Your task to perform on an android device: Add "bose soundlink" to the cart on amazon.com Image 0: 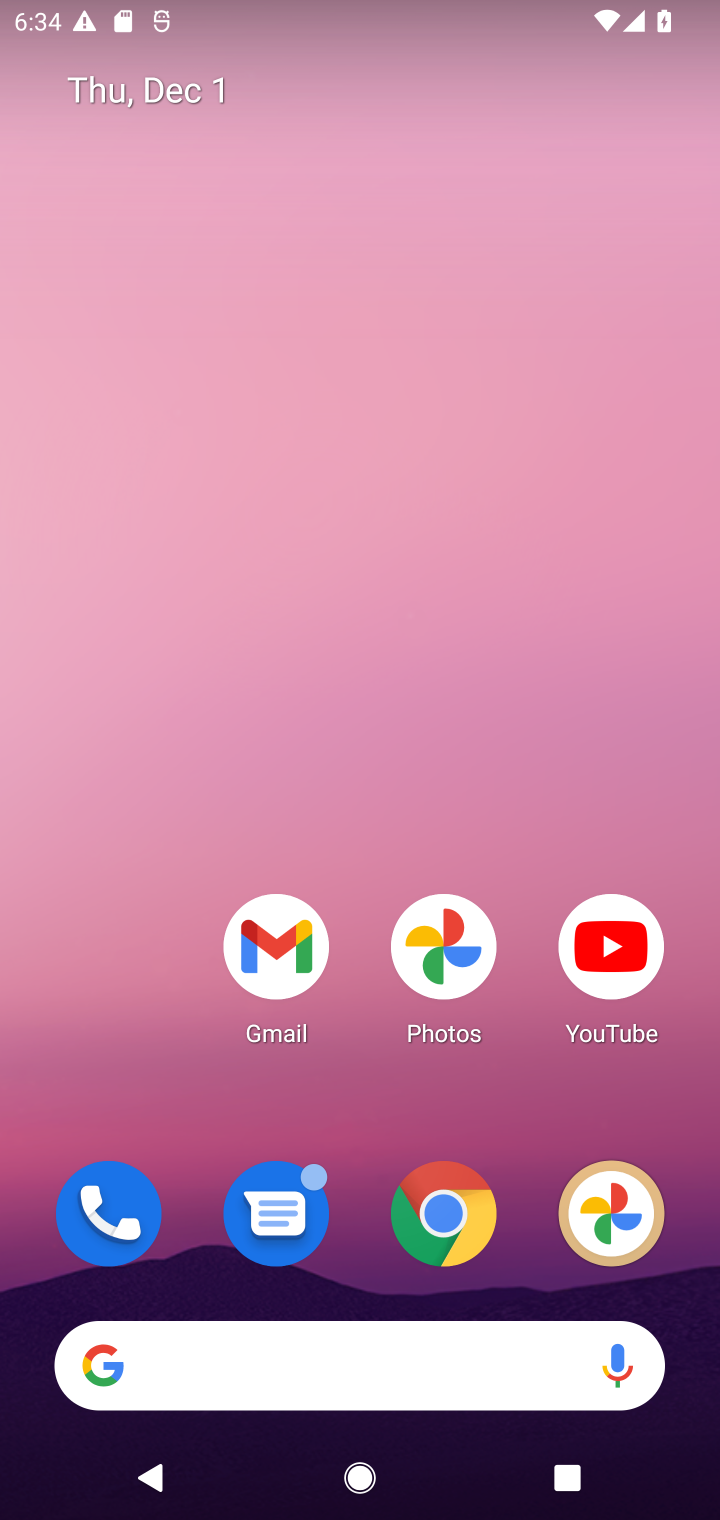
Step 0: click (286, 1355)
Your task to perform on an android device: Add "bose soundlink" to the cart on amazon.com Image 1: 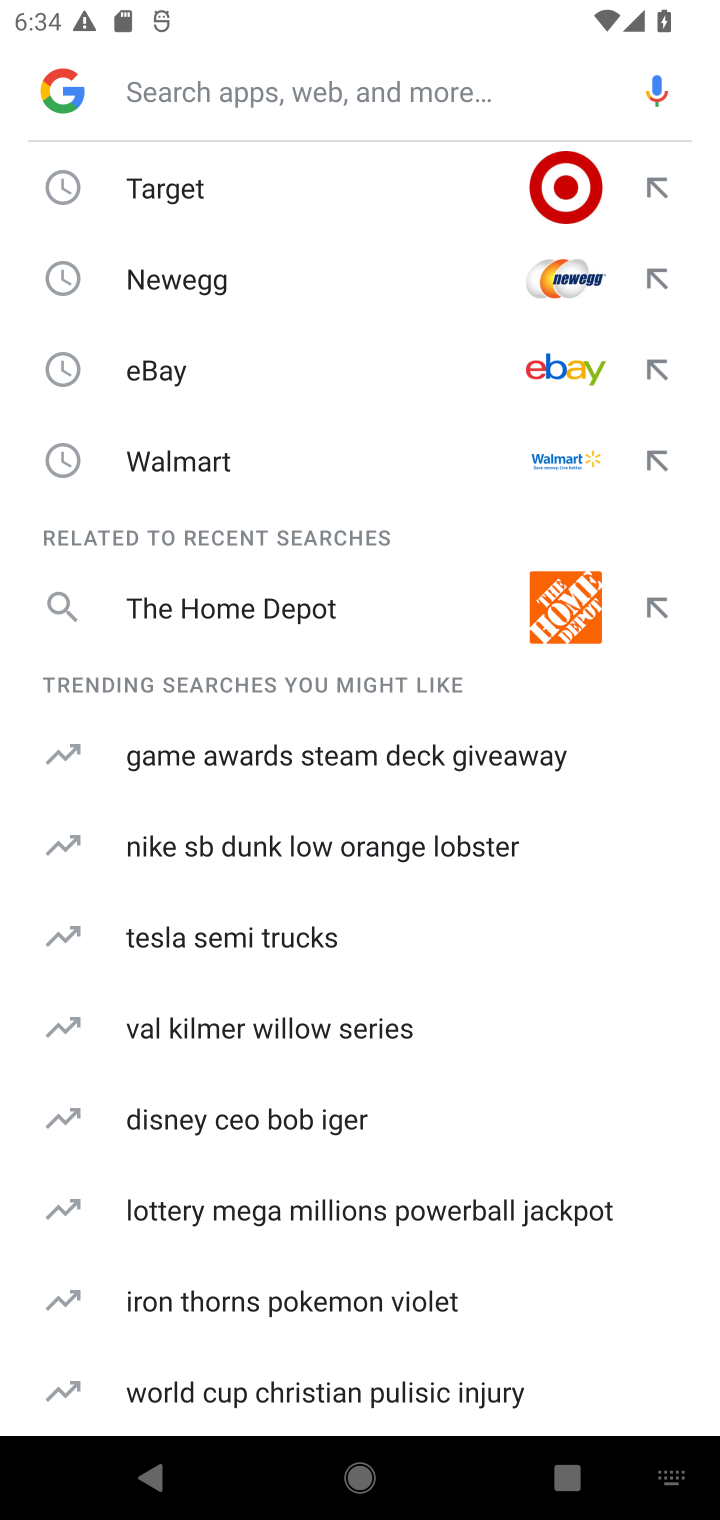
Step 1: type "amazon"
Your task to perform on an android device: Add "bose soundlink" to the cart on amazon.com Image 2: 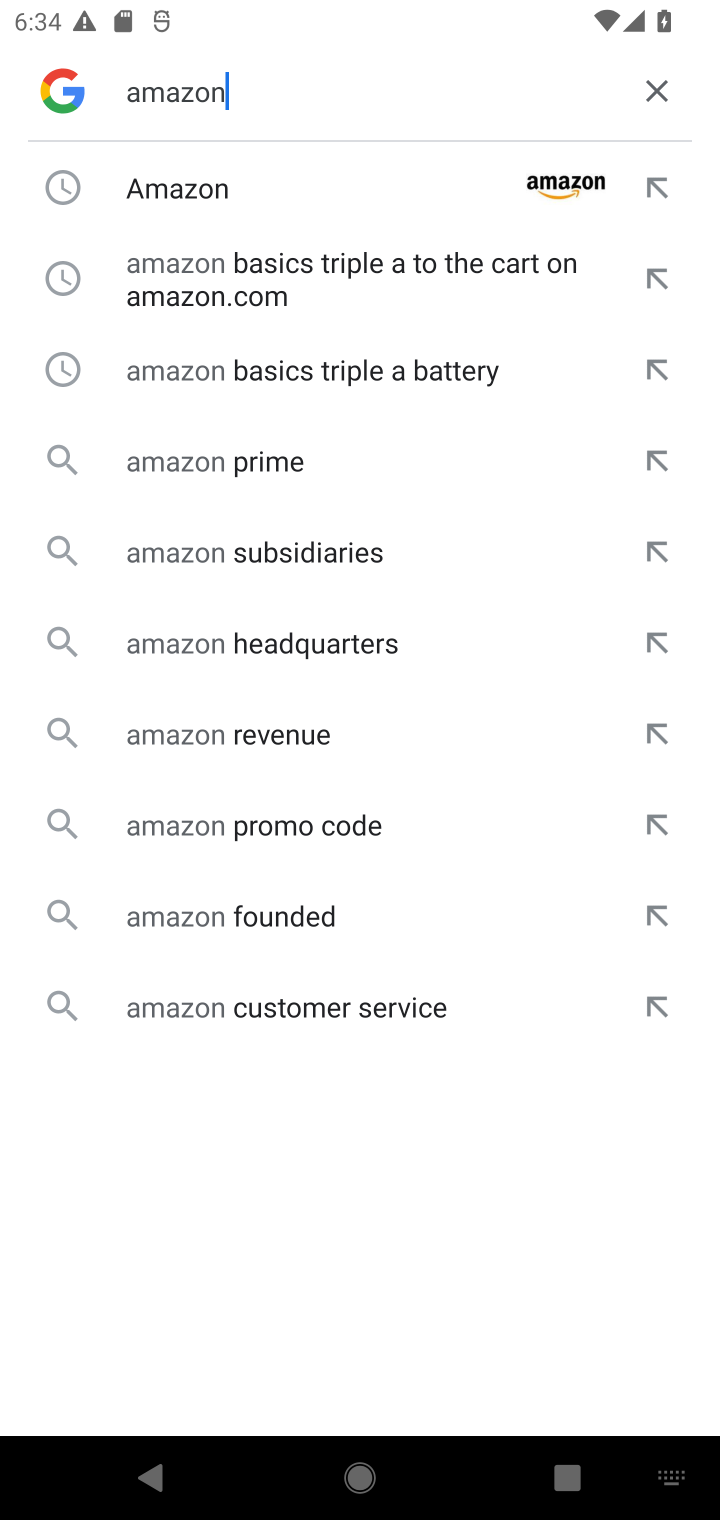
Step 2: click (153, 216)
Your task to perform on an android device: Add "bose soundlink" to the cart on amazon.com Image 3: 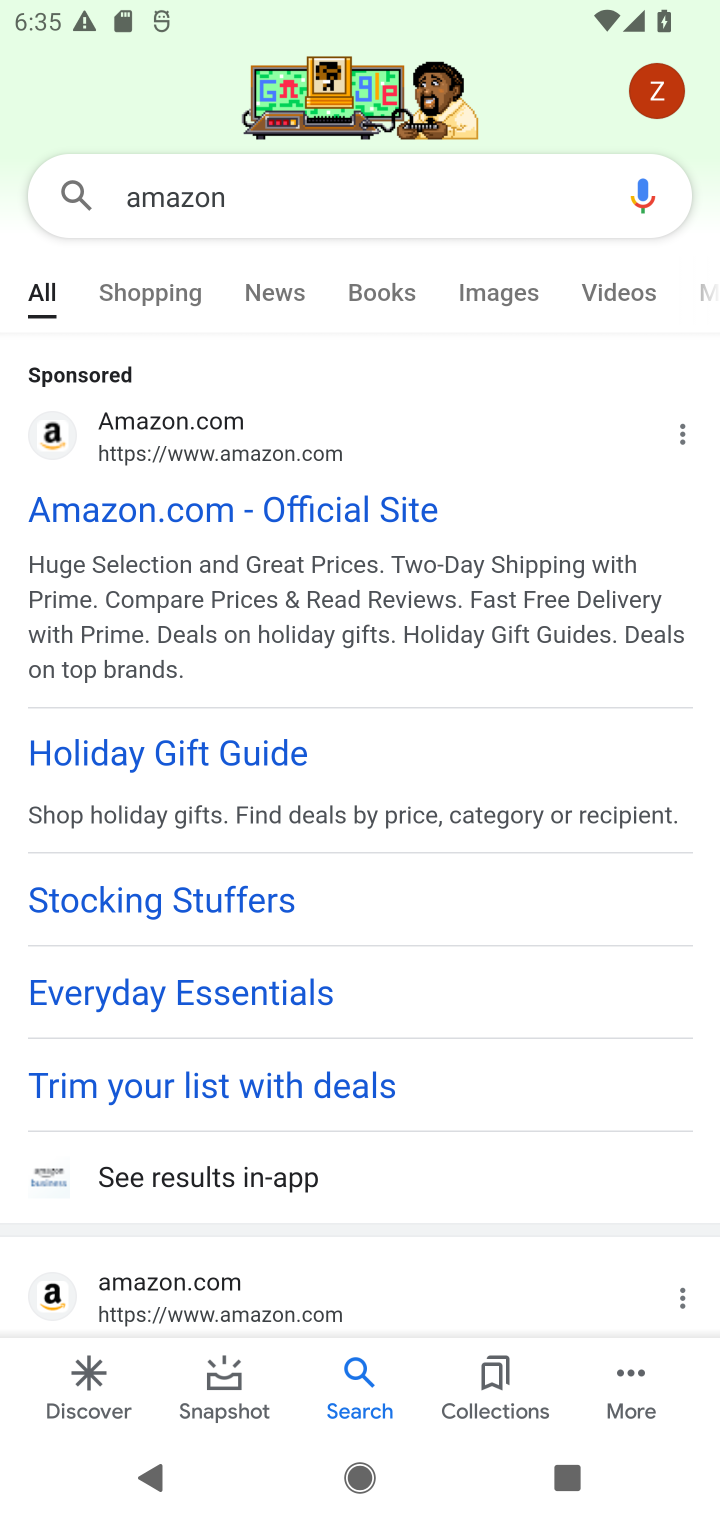
Step 3: click (335, 510)
Your task to perform on an android device: Add "bose soundlink" to the cart on amazon.com Image 4: 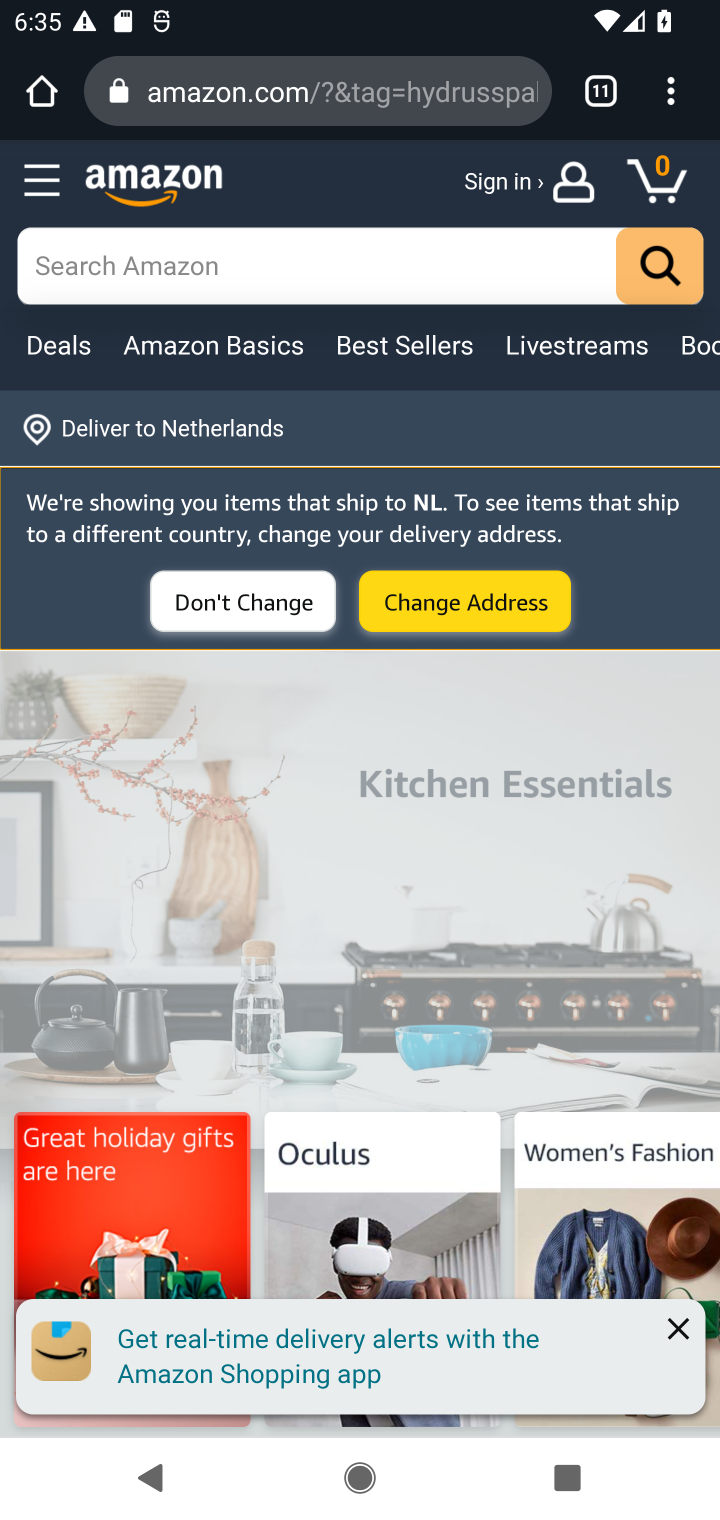
Step 4: click (222, 248)
Your task to perform on an android device: Add "bose soundlink" to the cart on amazon.com Image 5: 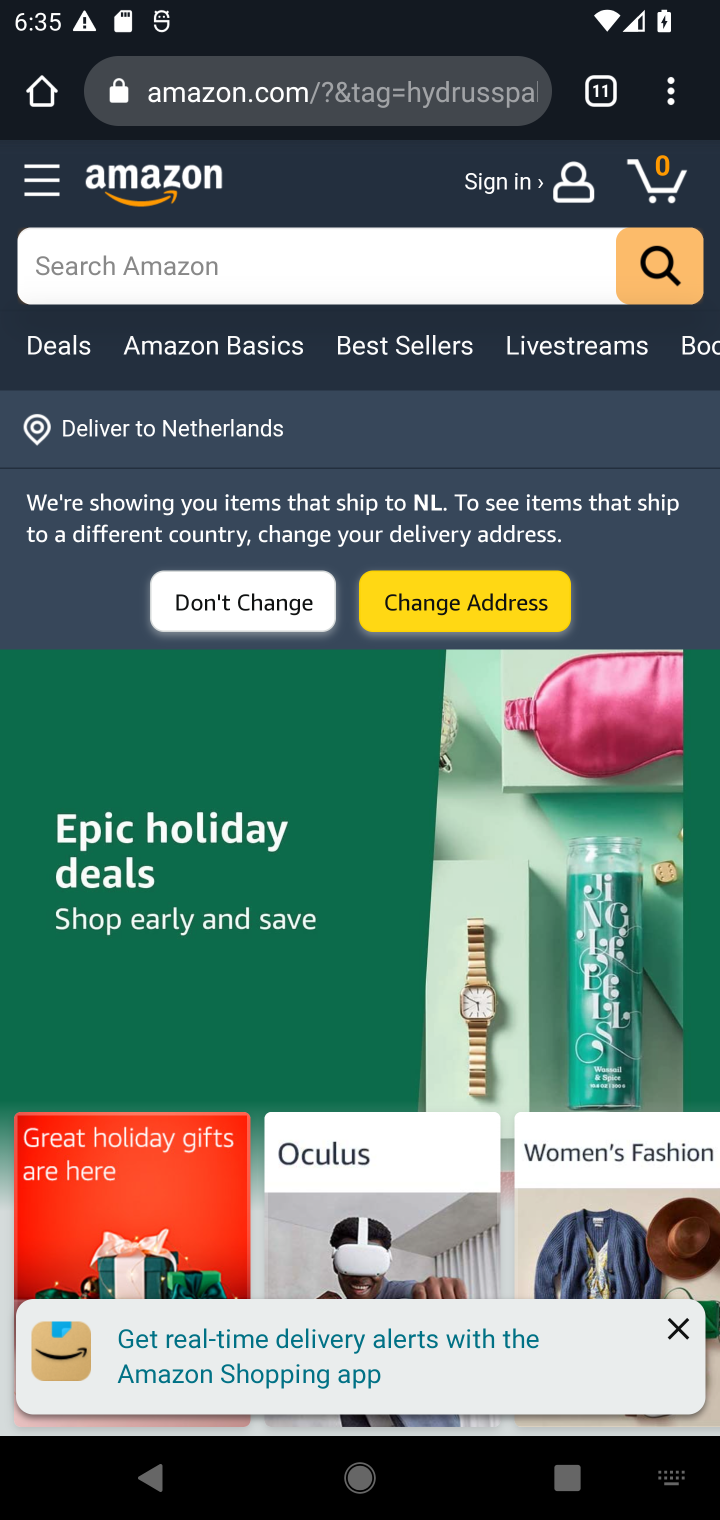
Step 5: type "bose soublink"
Your task to perform on an android device: Add "bose soundlink" to the cart on amazon.com Image 6: 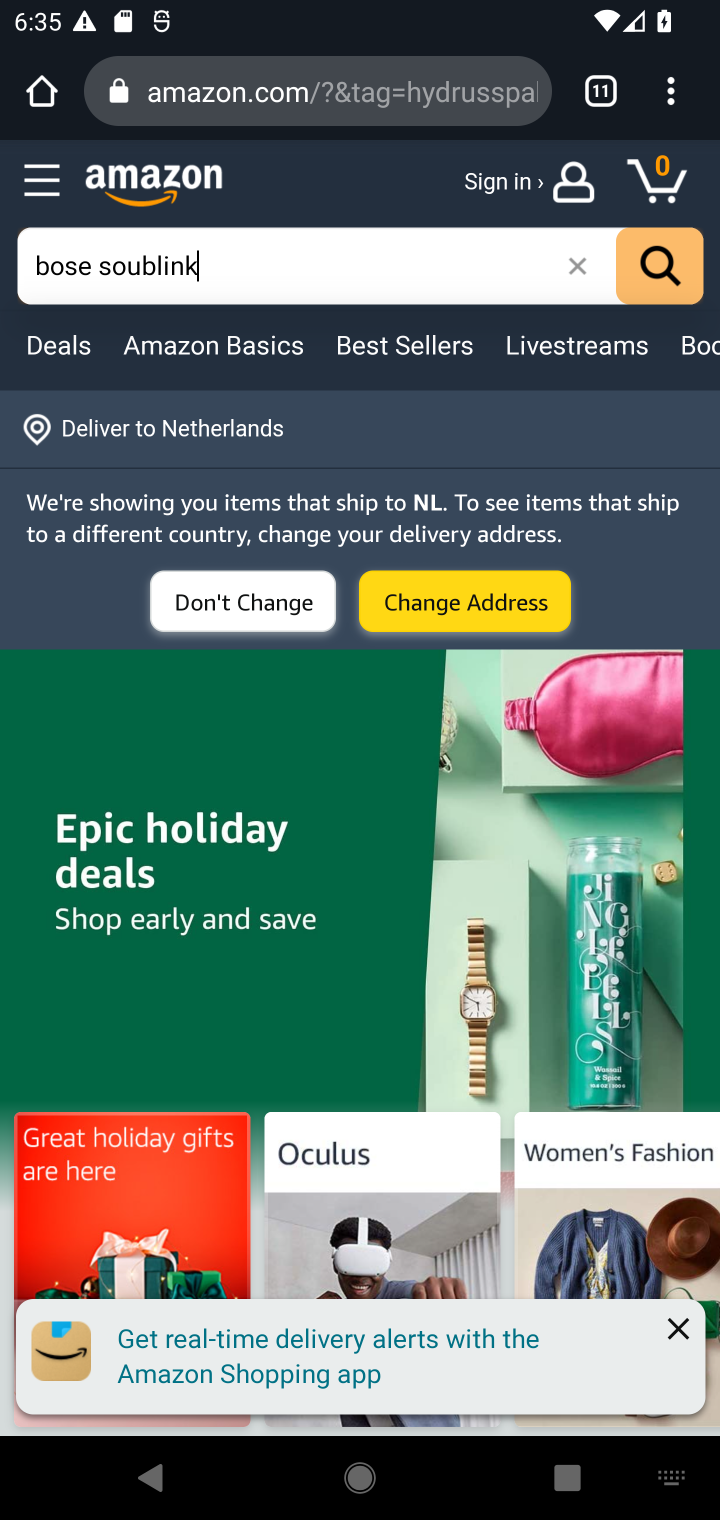
Step 6: click (670, 278)
Your task to perform on an android device: Add "bose soundlink" to the cart on amazon.com Image 7: 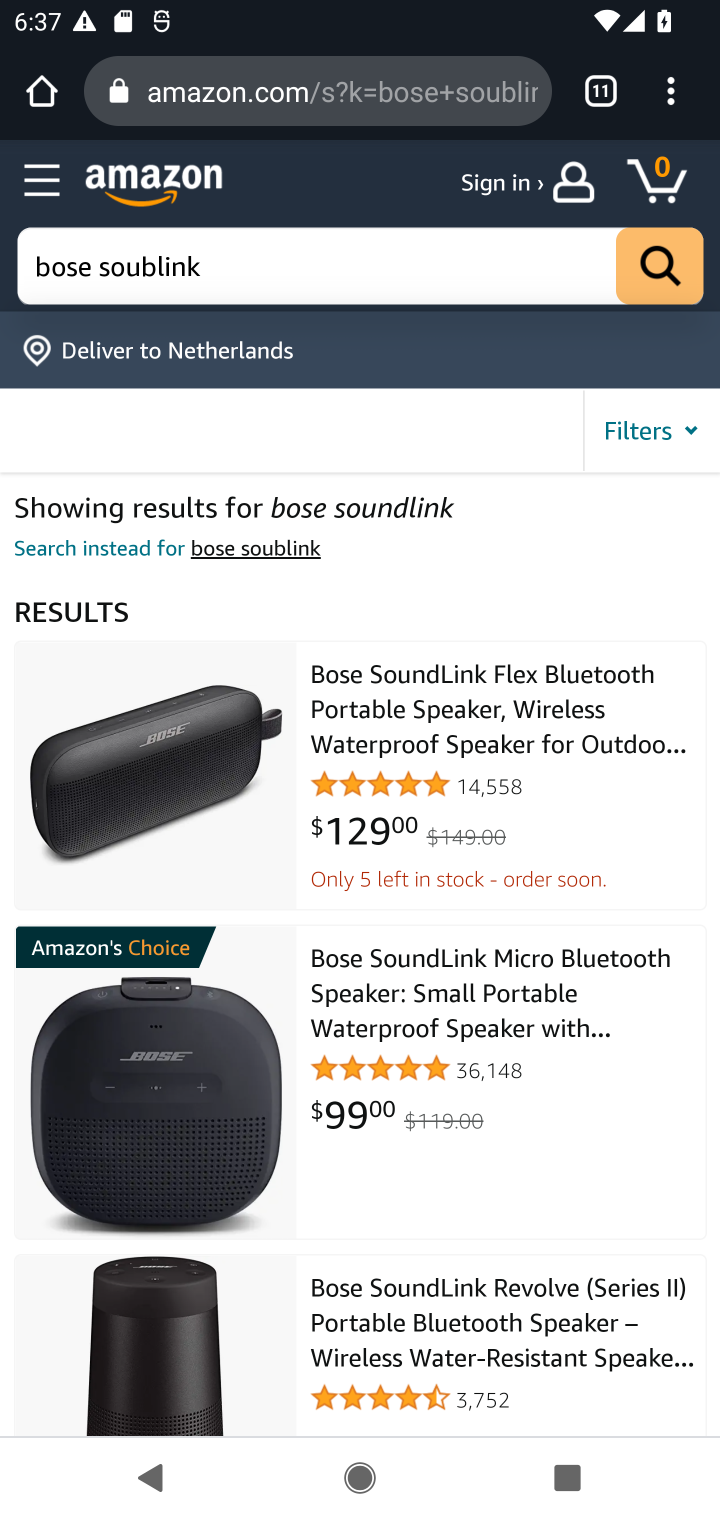
Step 7: click (608, 681)
Your task to perform on an android device: Add "bose soundlink" to the cart on amazon.com Image 8: 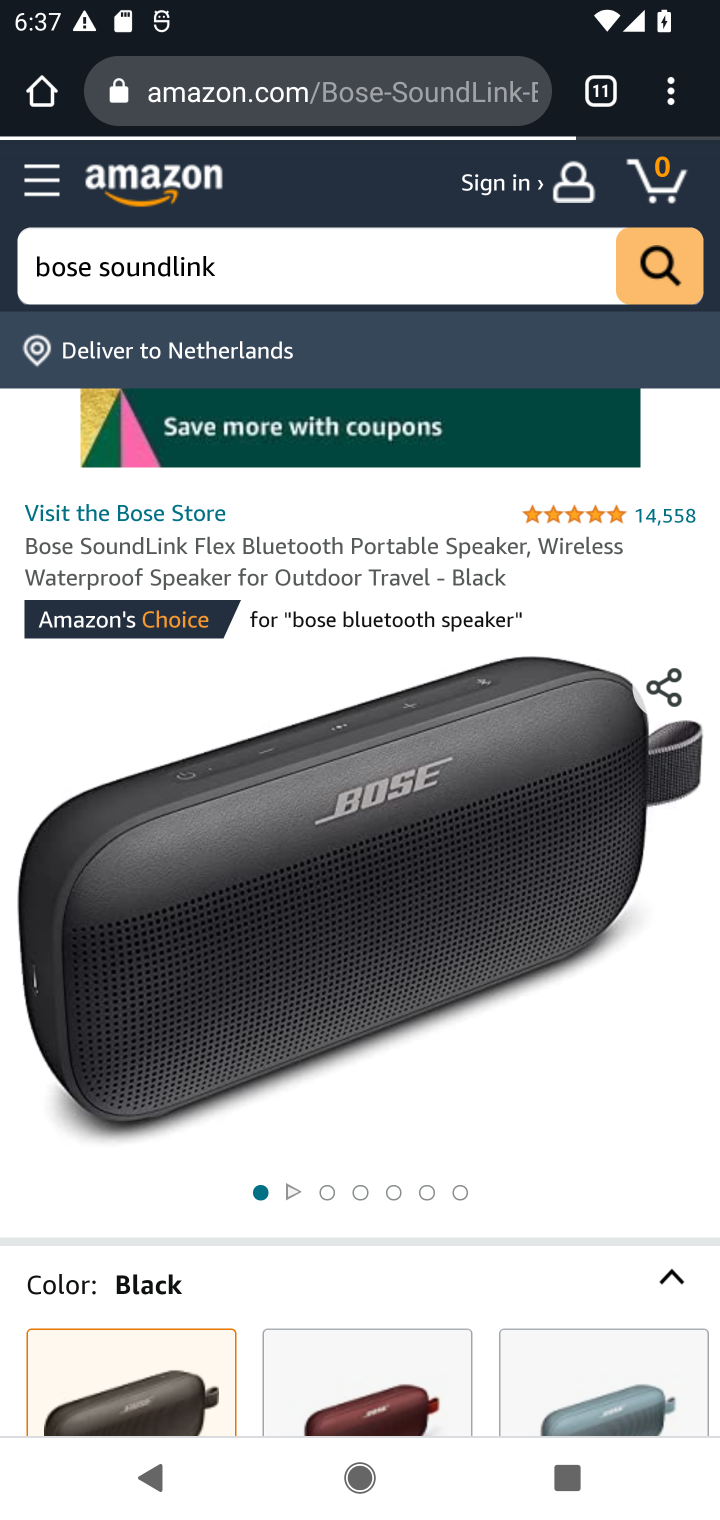
Step 8: drag from (444, 1131) to (436, 568)
Your task to perform on an android device: Add "bose soundlink" to the cart on amazon.com Image 9: 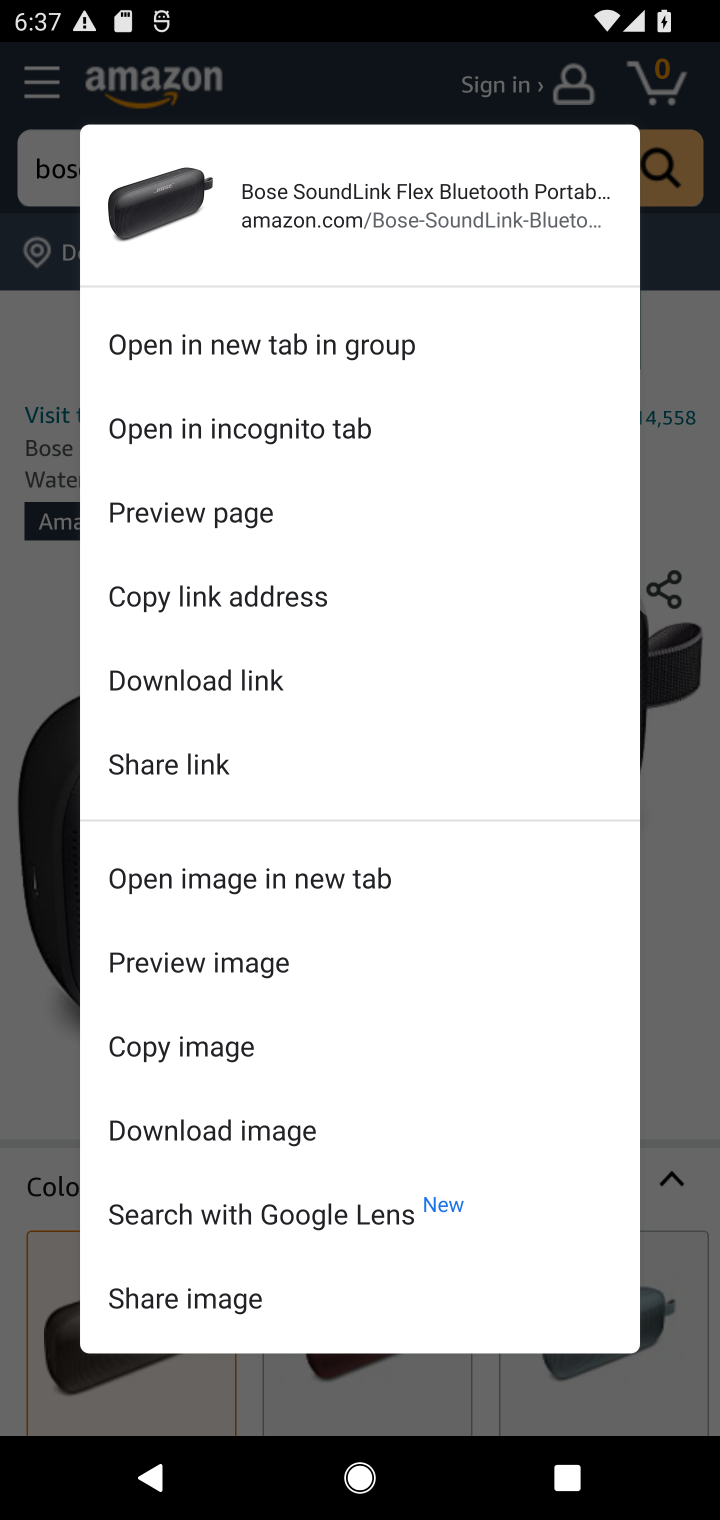
Step 9: click (678, 919)
Your task to perform on an android device: Add "bose soundlink" to the cart on amazon.com Image 10: 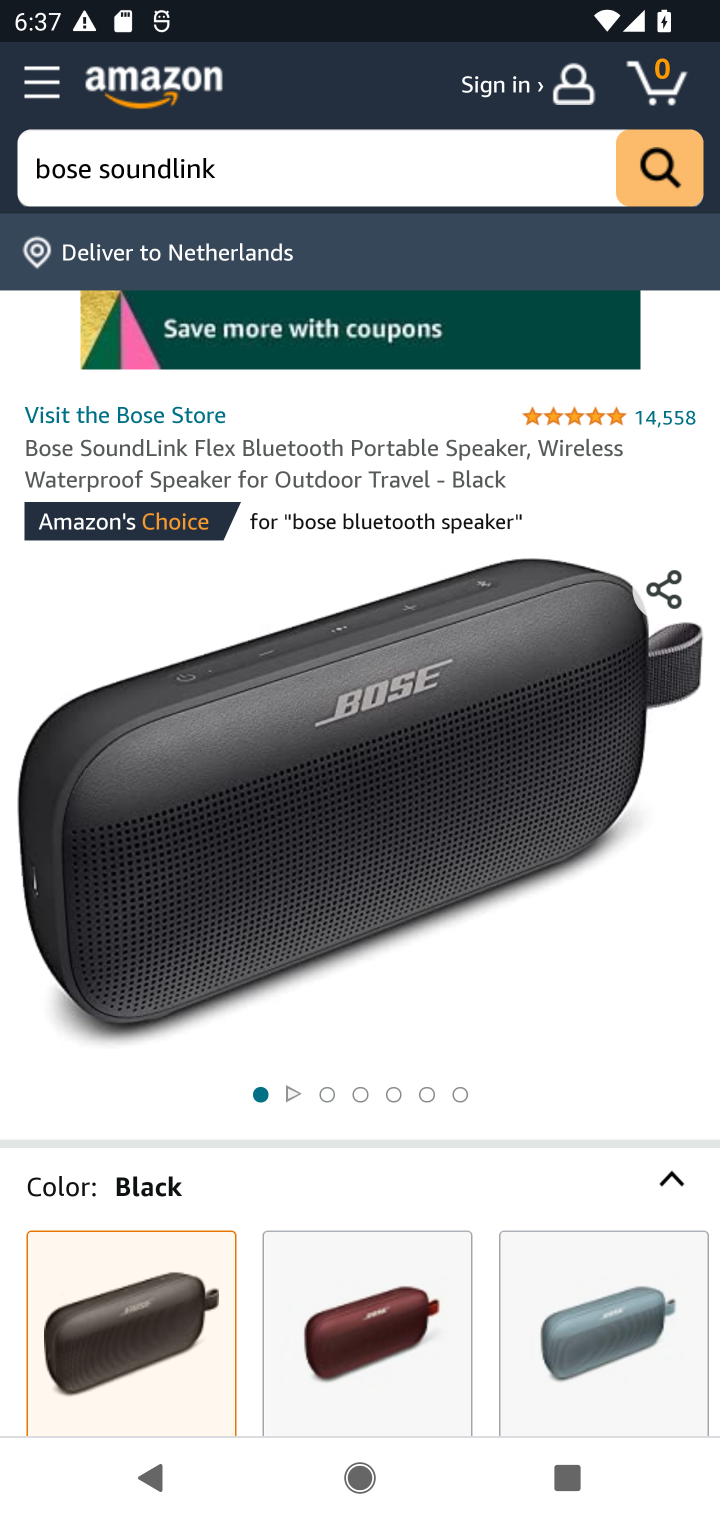
Step 10: task complete